Your task to perform on an android device: Add "usb-c to usb-b" to the cart on newegg, then select checkout. Image 0: 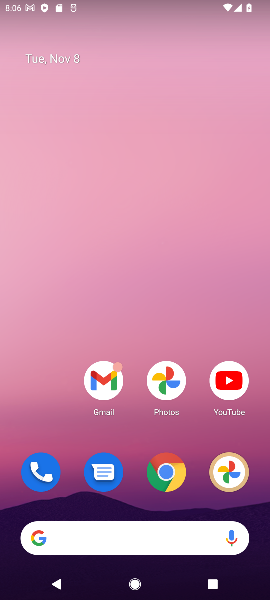
Step 0: click (167, 474)
Your task to perform on an android device: Add "usb-c to usb-b" to the cart on newegg, then select checkout. Image 1: 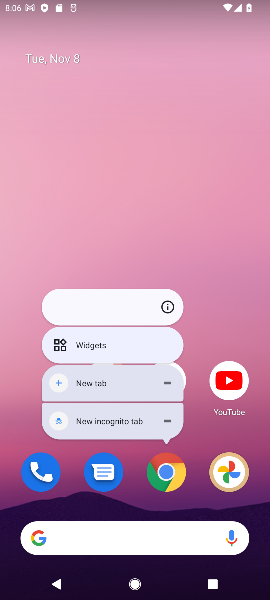
Step 1: click (170, 474)
Your task to perform on an android device: Add "usb-c to usb-b" to the cart on newegg, then select checkout. Image 2: 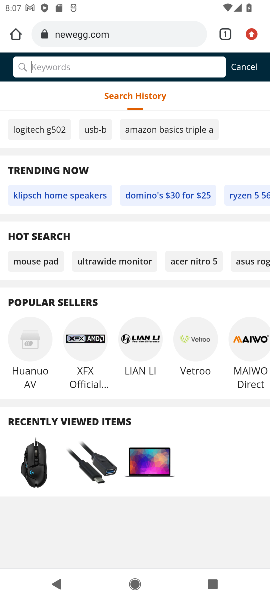
Step 2: type "usb-c to usb-b"
Your task to perform on an android device: Add "usb-c to usb-b" to the cart on newegg, then select checkout. Image 3: 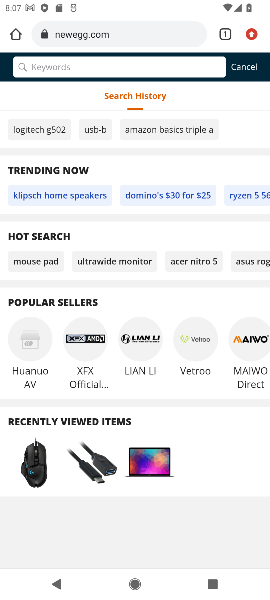
Step 3: press enter
Your task to perform on an android device: Add "usb-c to usb-b" to the cart on newegg, then select checkout. Image 4: 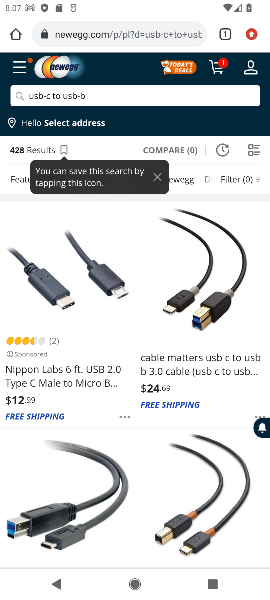
Step 4: click (225, 354)
Your task to perform on an android device: Add "usb-c to usb-b" to the cart on newegg, then select checkout. Image 5: 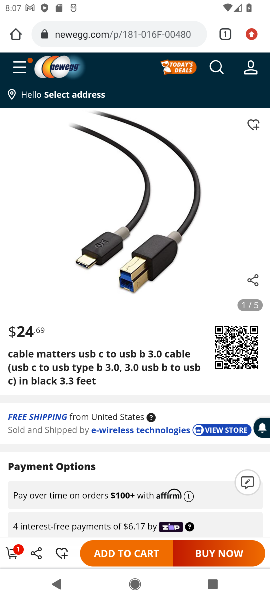
Step 5: click (127, 551)
Your task to perform on an android device: Add "usb-c to usb-b" to the cart on newegg, then select checkout. Image 6: 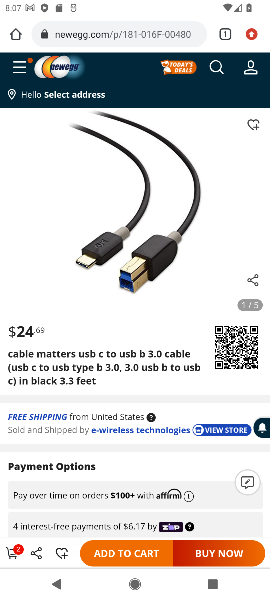
Step 6: click (11, 550)
Your task to perform on an android device: Add "usb-c to usb-b" to the cart on newegg, then select checkout. Image 7: 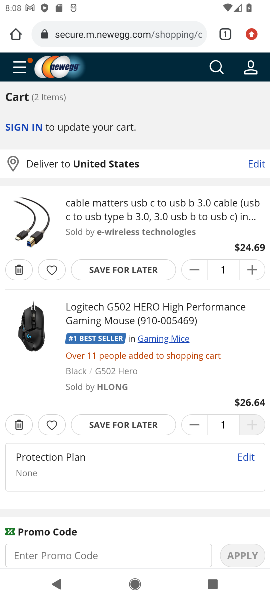
Step 7: click (21, 421)
Your task to perform on an android device: Add "usb-c to usb-b" to the cart on newegg, then select checkout. Image 8: 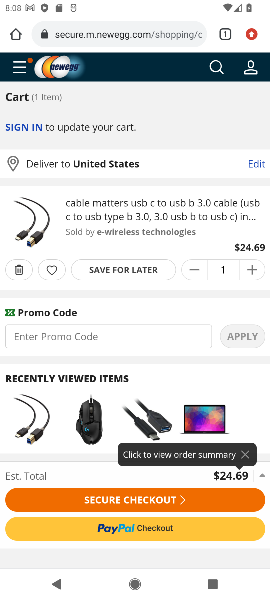
Step 8: click (167, 501)
Your task to perform on an android device: Add "usb-c to usb-b" to the cart on newegg, then select checkout. Image 9: 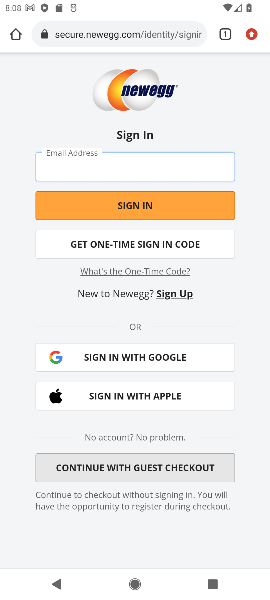
Step 9: task complete